Your task to perform on an android device: toggle pop-ups in chrome Image 0: 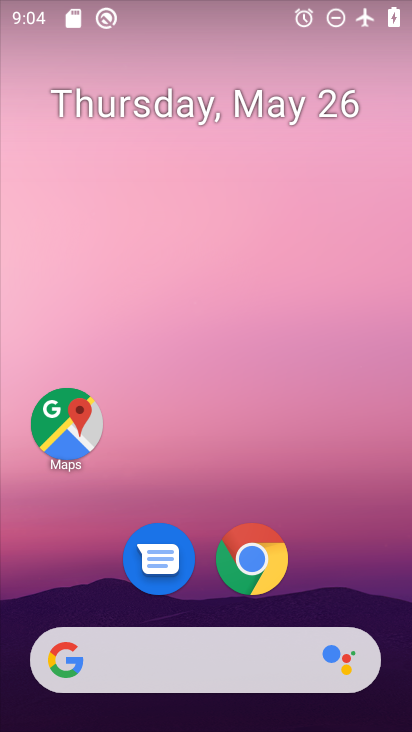
Step 0: click (254, 564)
Your task to perform on an android device: toggle pop-ups in chrome Image 1: 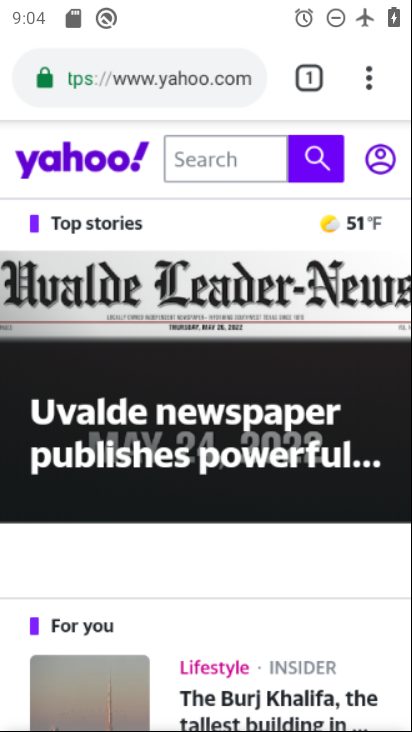
Step 1: click (358, 77)
Your task to perform on an android device: toggle pop-ups in chrome Image 2: 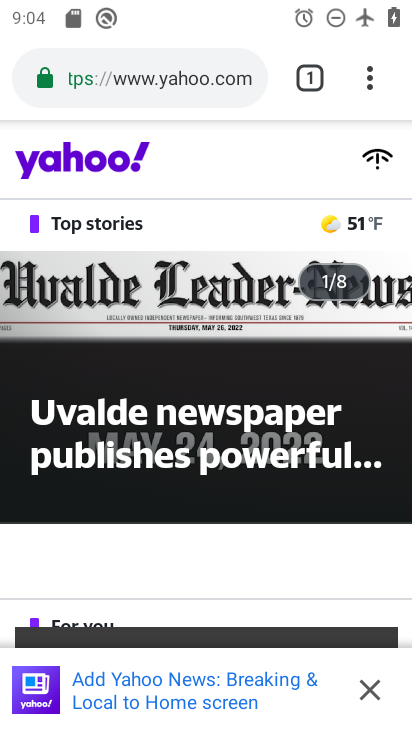
Step 2: click (367, 75)
Your task to perform on an android device: toggle pop-ups in chrome Image 3: 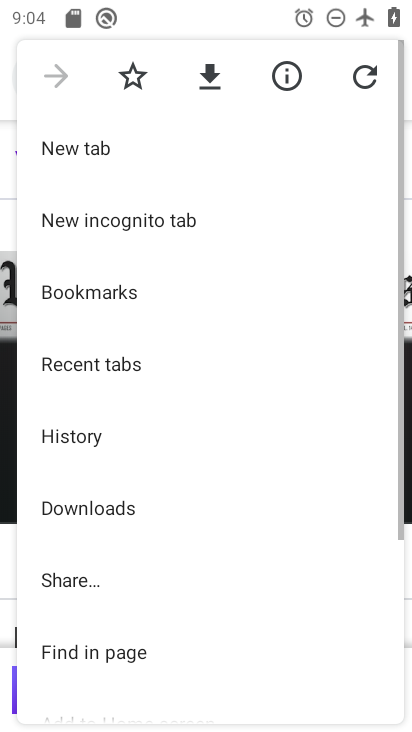
Step 3: drag from (179, 603) to (208, 139)
Your task to perform on an android device: toggle pop-ups in chrome Image 4: 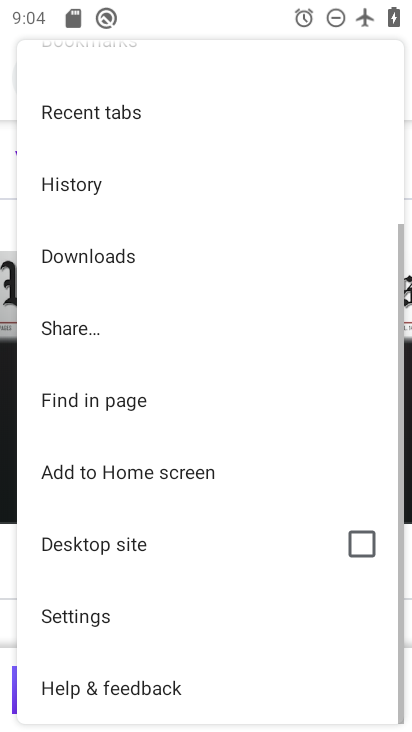
Step 4: click (88, 632)
Your task to perform on an android device: toggle pop-ups in chrome Image 5: 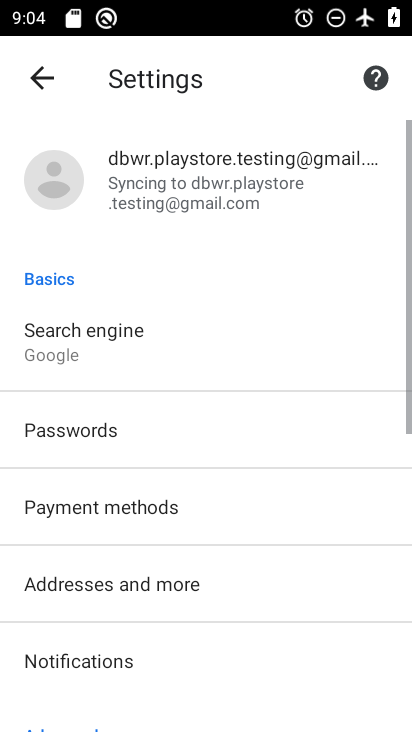
Step 5: drag from (207, 624) to (206, 243)
Your task to perform on an android device: toggle pop-ups in chrome Image 6: 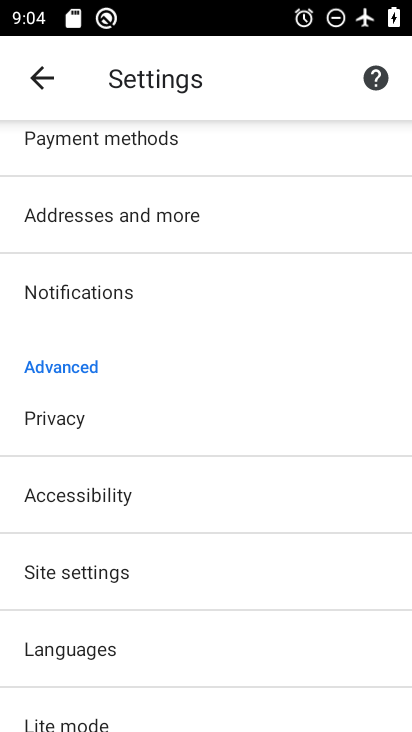
Step 6: click (121, 570)
Your task to perform on an android device: toggle pop-ups in chrome Image 7: 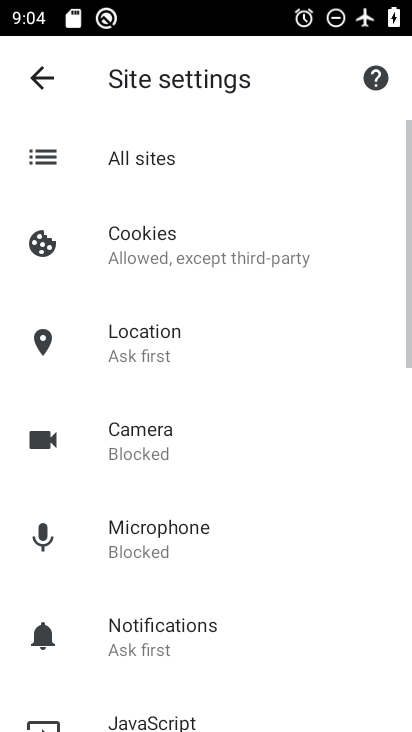
Step 7: drag from (200, 654) to (219, 308)
Your task to perform on an android device: toggle pop-ups in chrome Image 8: 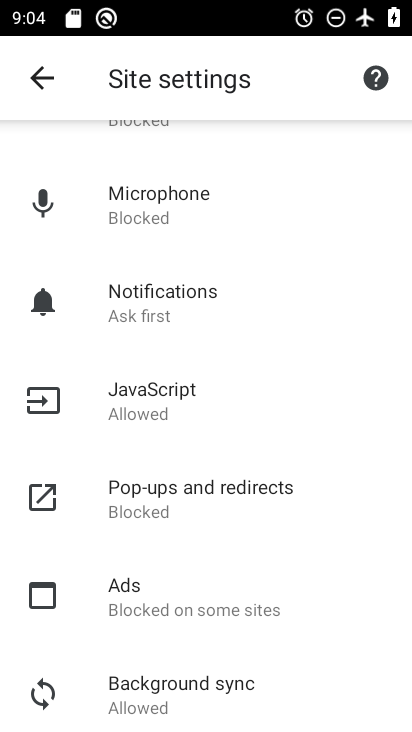
Step 8: click (164, 484)
Your task to perform on an android device: toggle pop-ups in chrome Image 9: 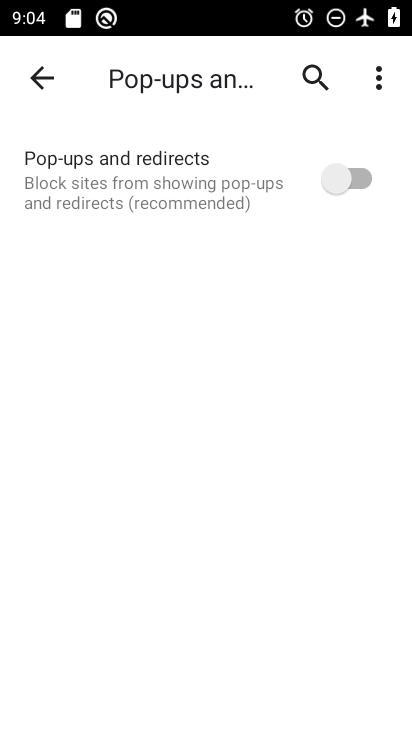
Step 9: click (343, 174)
Your task to perform on an android device: toggle pop-ups in chrome Image 10: 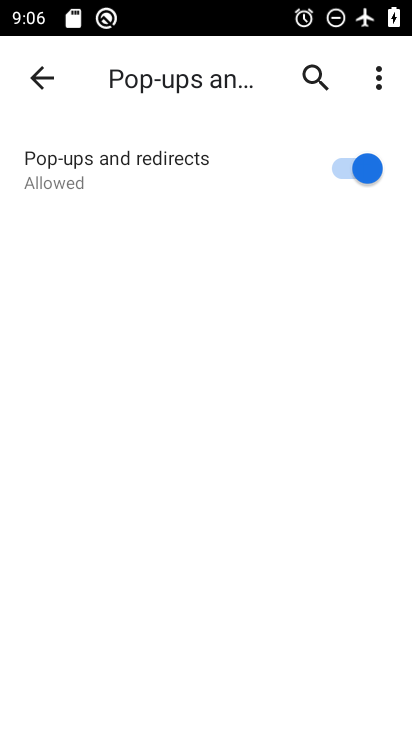
Step 10: task complete